Your task to perform on an android device: Open location settings Image 0: 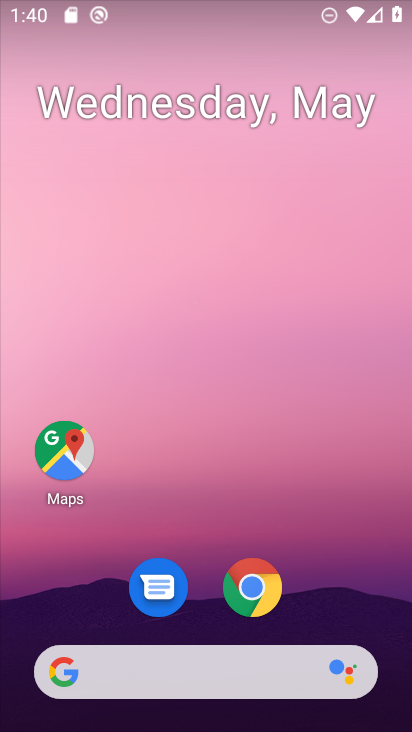
Step 0: drag from (313, 591) to (244, 222)
Your task to perform on an android device: Open location settings Image 1: 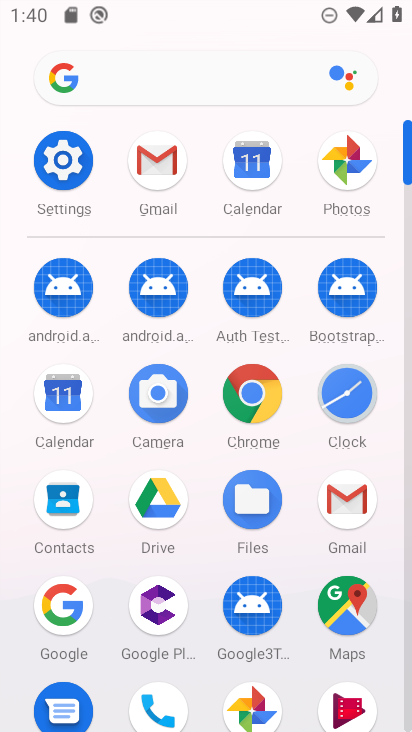
Step 1: click (61, 207)
Your task to perform on an android device: Open location settings Image 2: 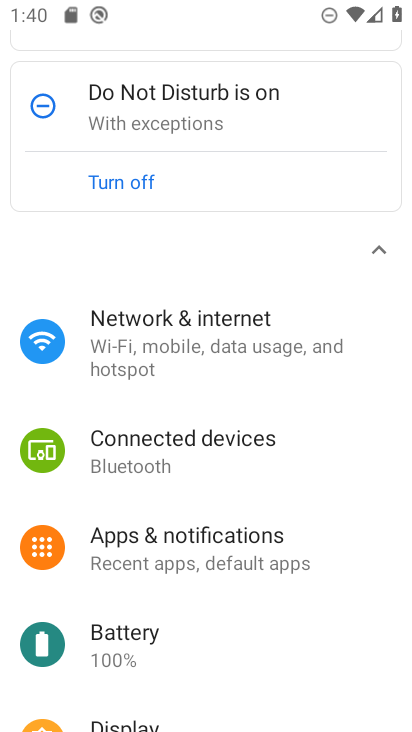
Step 2: drag from (196, 694) to (204, 323)
Your task to perform on an android device: Open location settings Image 3: 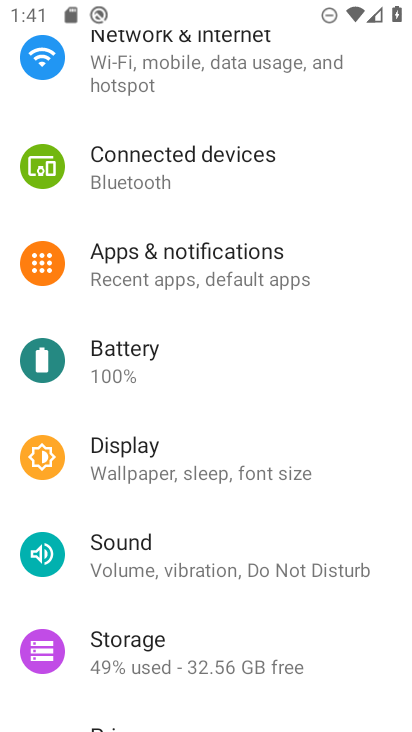
Step 3: drag from (164, 580) to (187, 324)
Your task to perform on an android device: Open location settings Image 4: 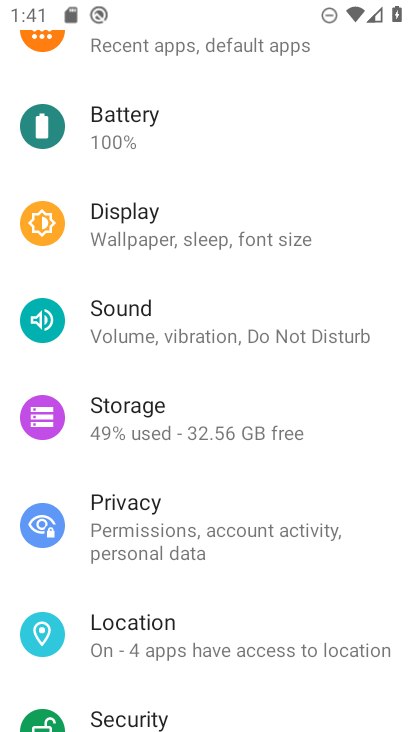
Step 4: click (183, 645)
Your task to perform on an android device: Open location settings Image 5: 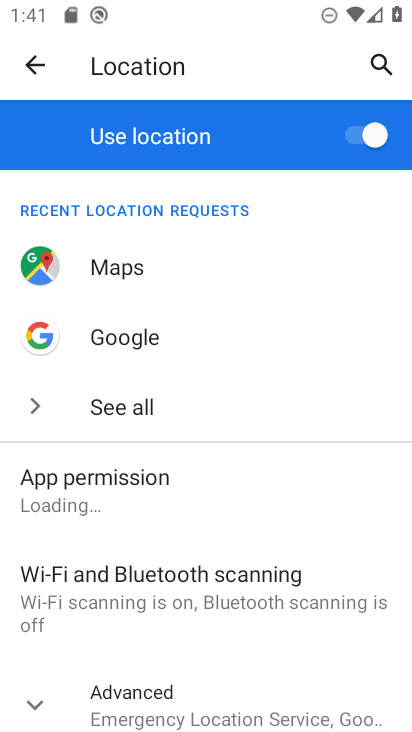
Step 5: task complete